Your task to perform on an android device: turn off location Image 0: 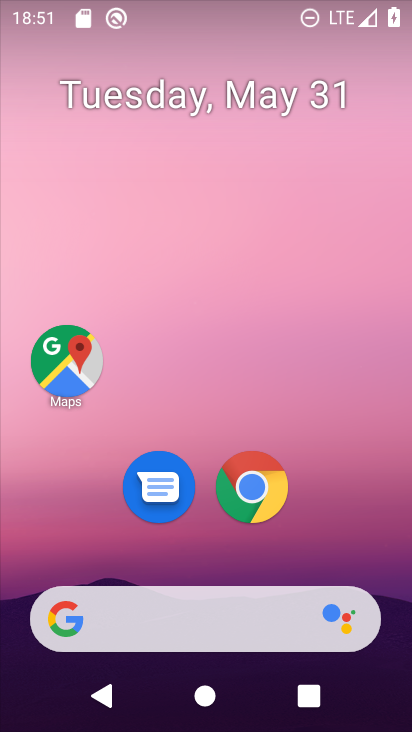
Step 0: drag from (332, 499) to (240, 132)
Your task to perform on an android device: turn off location Image 1: 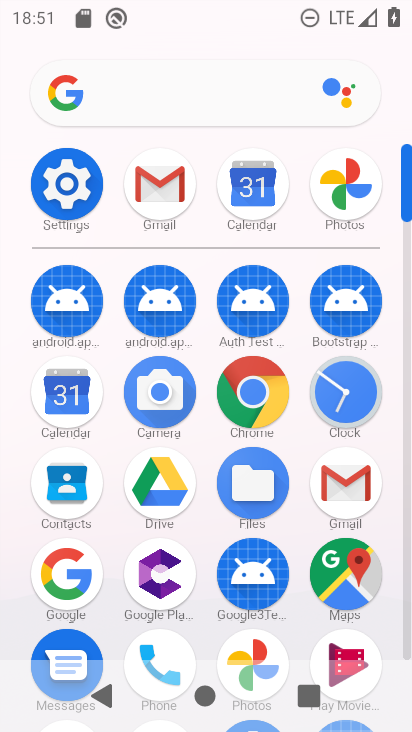
Step 1: click (69, 189)
Your task to perform on an android device: turn off location Image 2: 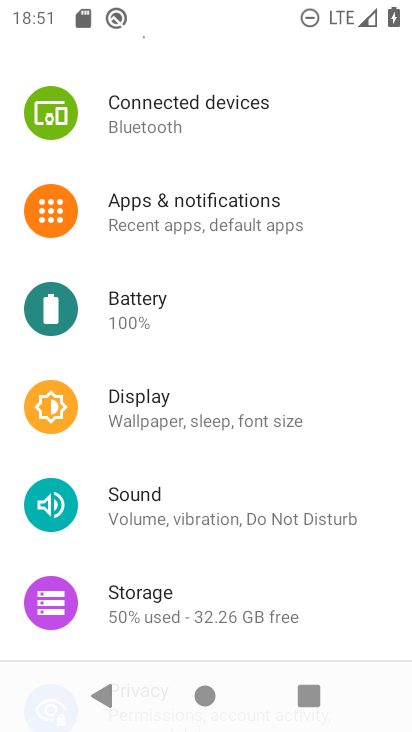
Step 2: drag from (210, 545) to (203, 210)
Your task to perform on an android device: turn off location Image 3: 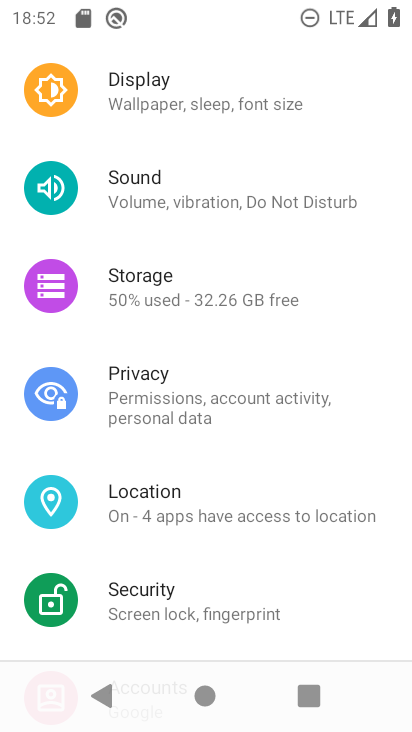
Step 3: click (147, 496)
Your task to perform on an android device: turn off location Image 4: 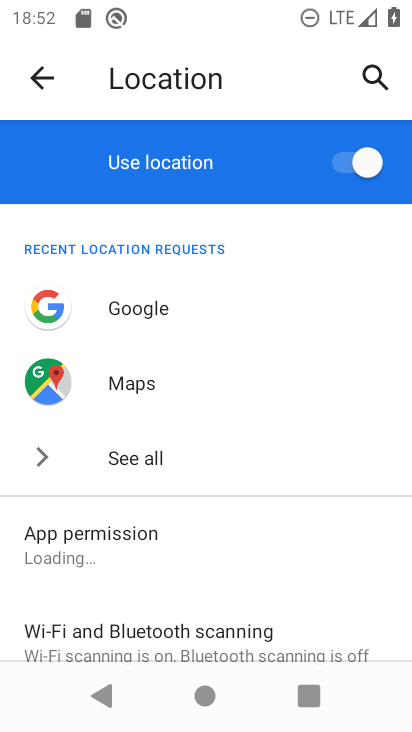
Step 4: click (365, 153)
Your task to perform on an android device: turn off location Image 5: 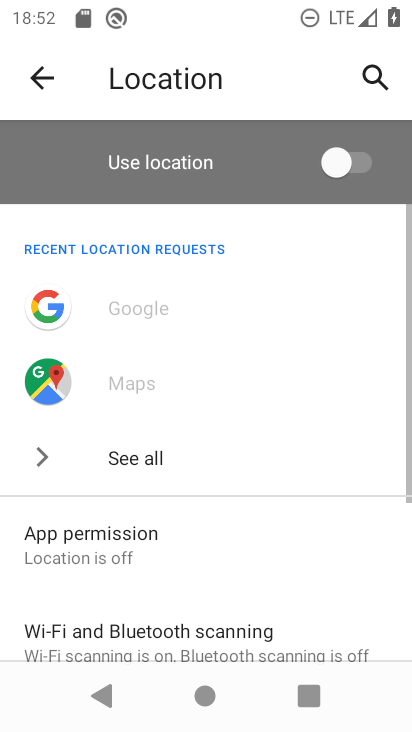
Step 5: task complete